Your task to perform on an android device: empty trash in the gmail app Image 0: 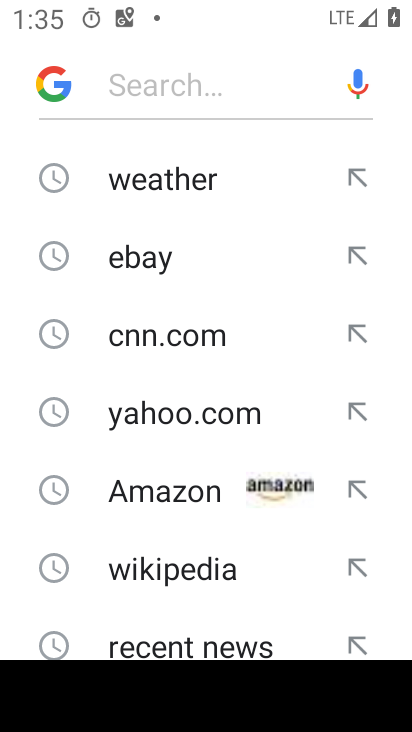
Step 0: press home button
Your task to perform on an android device: empty trash in the gmail app Image 1: 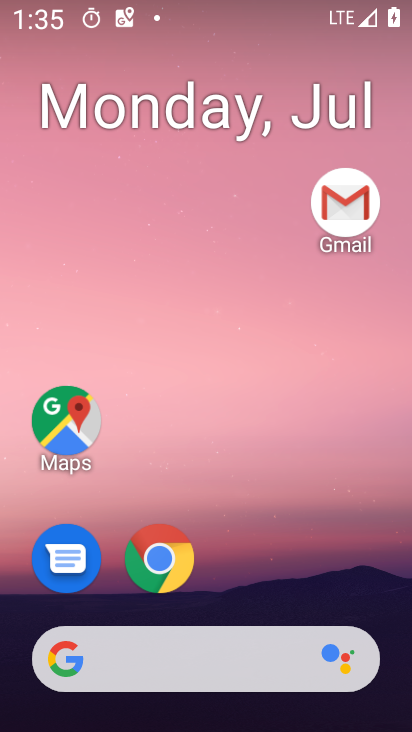
Step 1: drag from (356, 597) to (383, 205)
Your task to perform on an android device: empty trash in the gmail app Image 2: 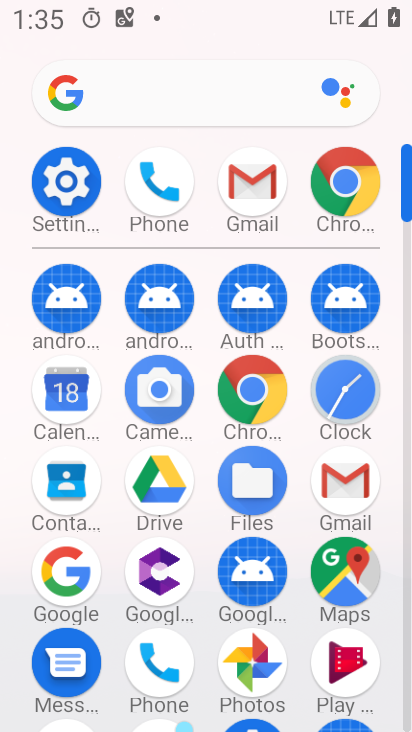
Step 2: click (350, 485)
Your task to perform on an android device: empty trash in the gmail app Image 3: 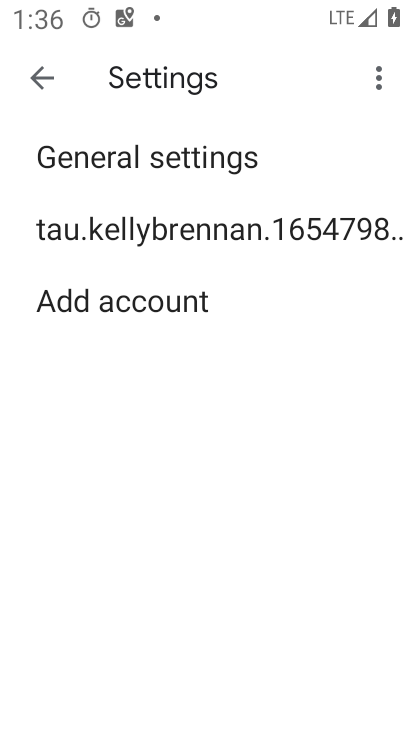
Step 3: press back button
Your task to perform on an android device: empty trash in the gmail app Image 4: 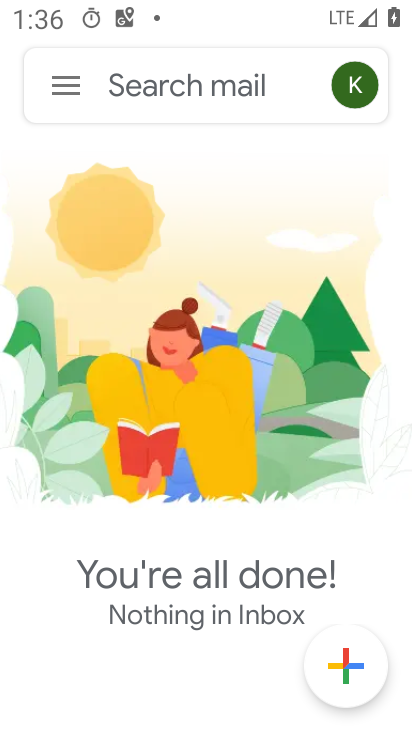
Step 4: click (74, 93)
Your task to perform on an android device: empty trash in the gmail app Image 5: 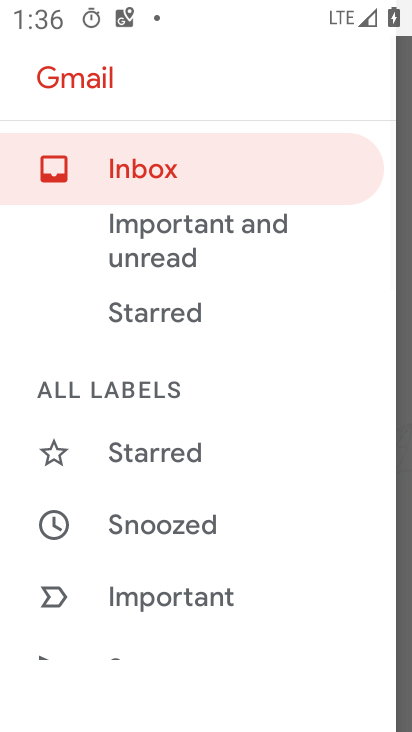
Step 5: drag from (234, 398) to (240, 321)
Your task to perform on an android device: empty trash in the gmail app Image 6: 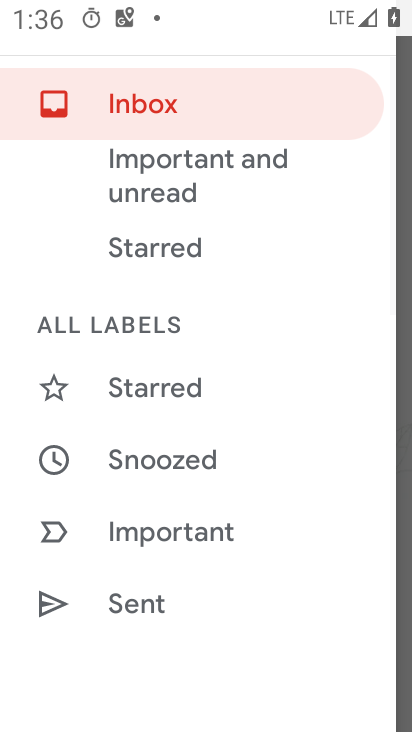
Step 6: drag from (282, 453) to (290, 339)
Your task to perform on an android device: empty trash in the gmail app Image 7: 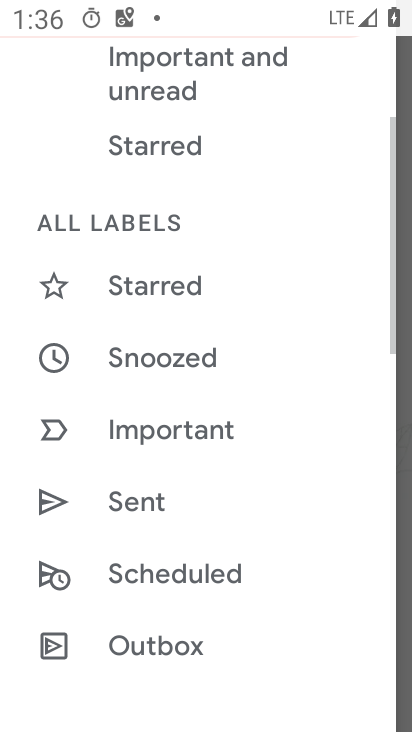
Step 7: drag from (291, 457) to (291, 331)
Your task to perform on an android device: empty trash in the gmail app Image 8: 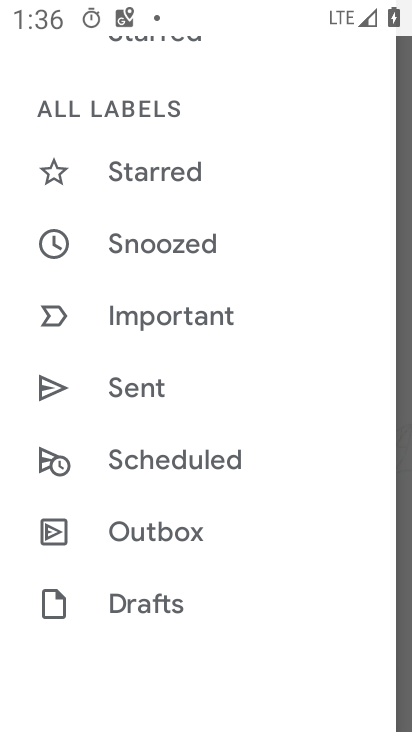
Step 8: drag from (289, 465) to (301, 334)
Your task to perform on an android device: empty trash in the gmail app Image 9: 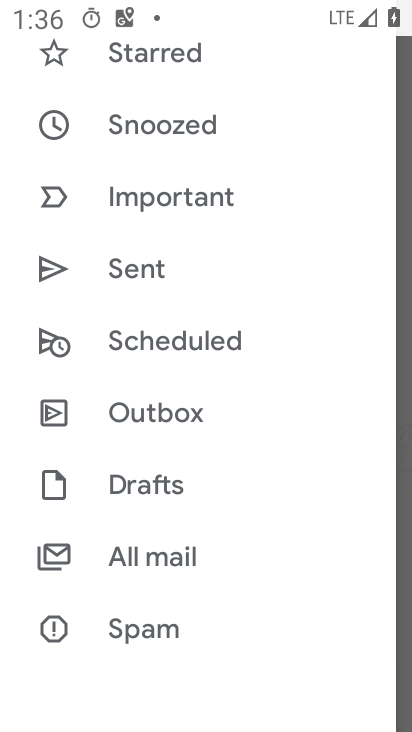
Step 9: drag from (292, 489) to (304, 379)
Your task to perform on an android device: empty trash in the gmail app Image 10: 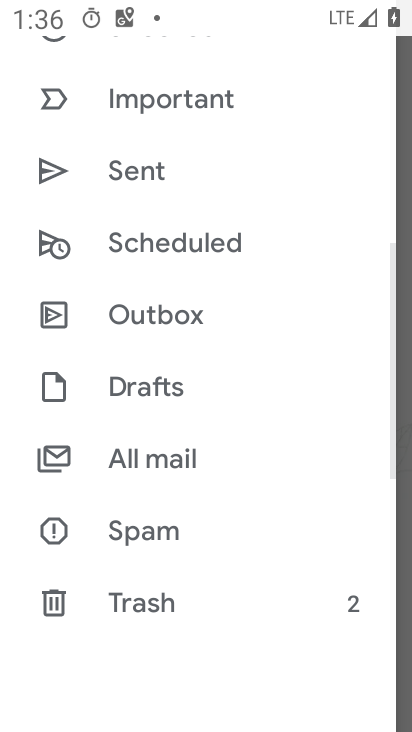
Step 10: drag from (281, 515) to (295, 418)
Your task to perform on an android device: empty trash in the gmail app Image 11: 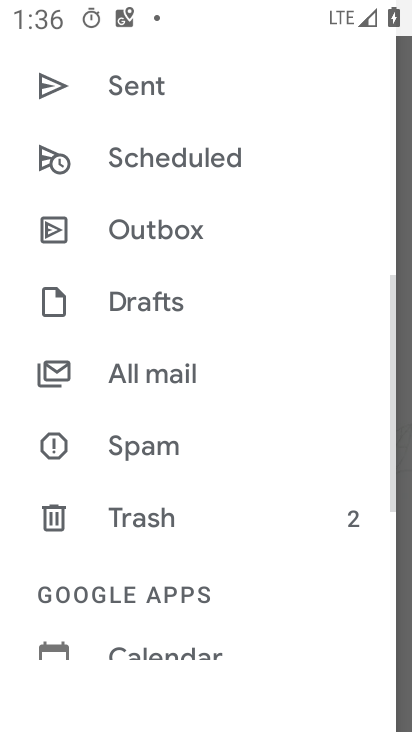
Step 11: drag from (283, 488) to (285, 397)
Your task to perform on an android device: empty trash in the gmail app Image 12: 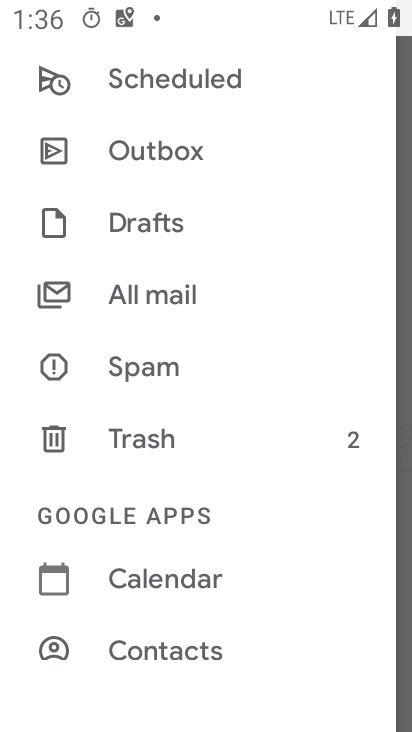
Step 12: click (257, 450)
Your task to perform on an android device: empty trash in the gmail app Image 13: 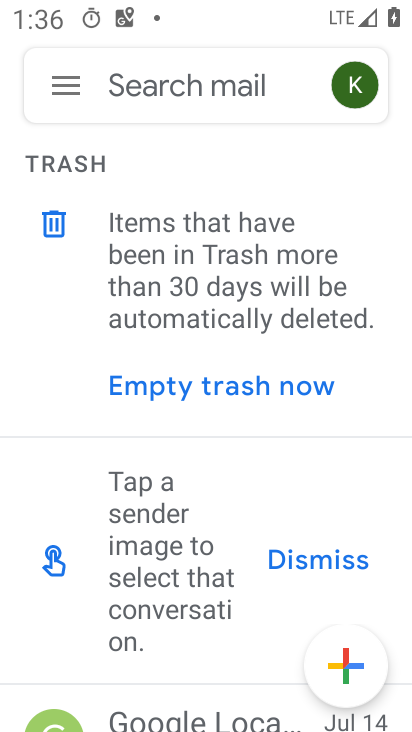
Step 13: click (235, 396)
Your task to perform on an android device: empty trash in the gmail app Image 14: 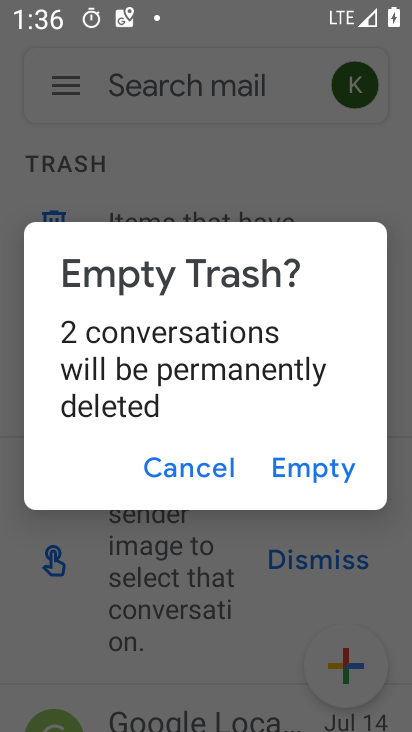
Step 14: click (283, 455)
Your task to perform on an android device: empty trash in the gmail app Image 15: 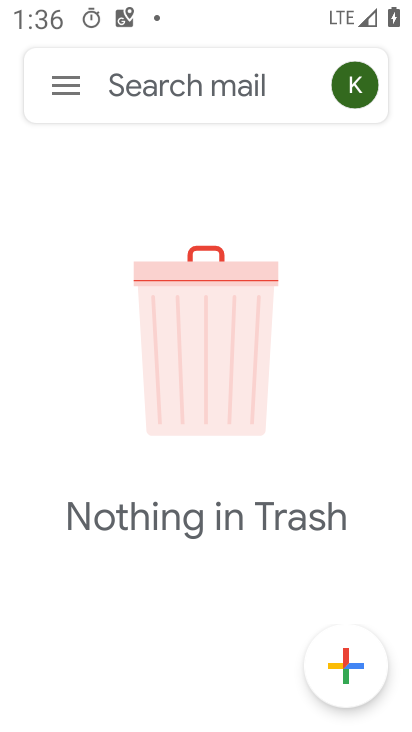
Step 15: task complete